Your task to perform on an android device: turn off improve location accuracy Image 0: 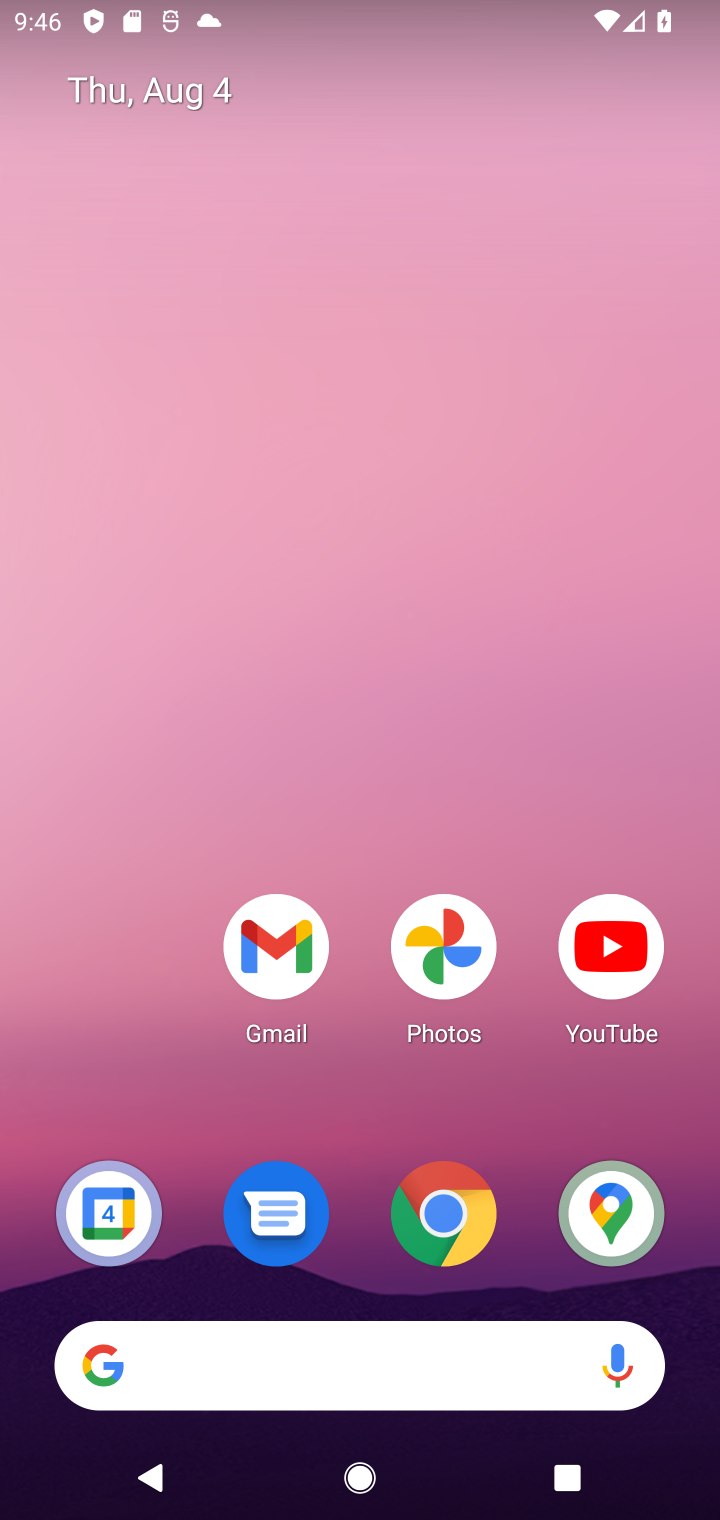
Step 0: drag from (351, 1127) to (460, 13)
Your task to perform on an android device: turn off improve location accuracy Image 1: 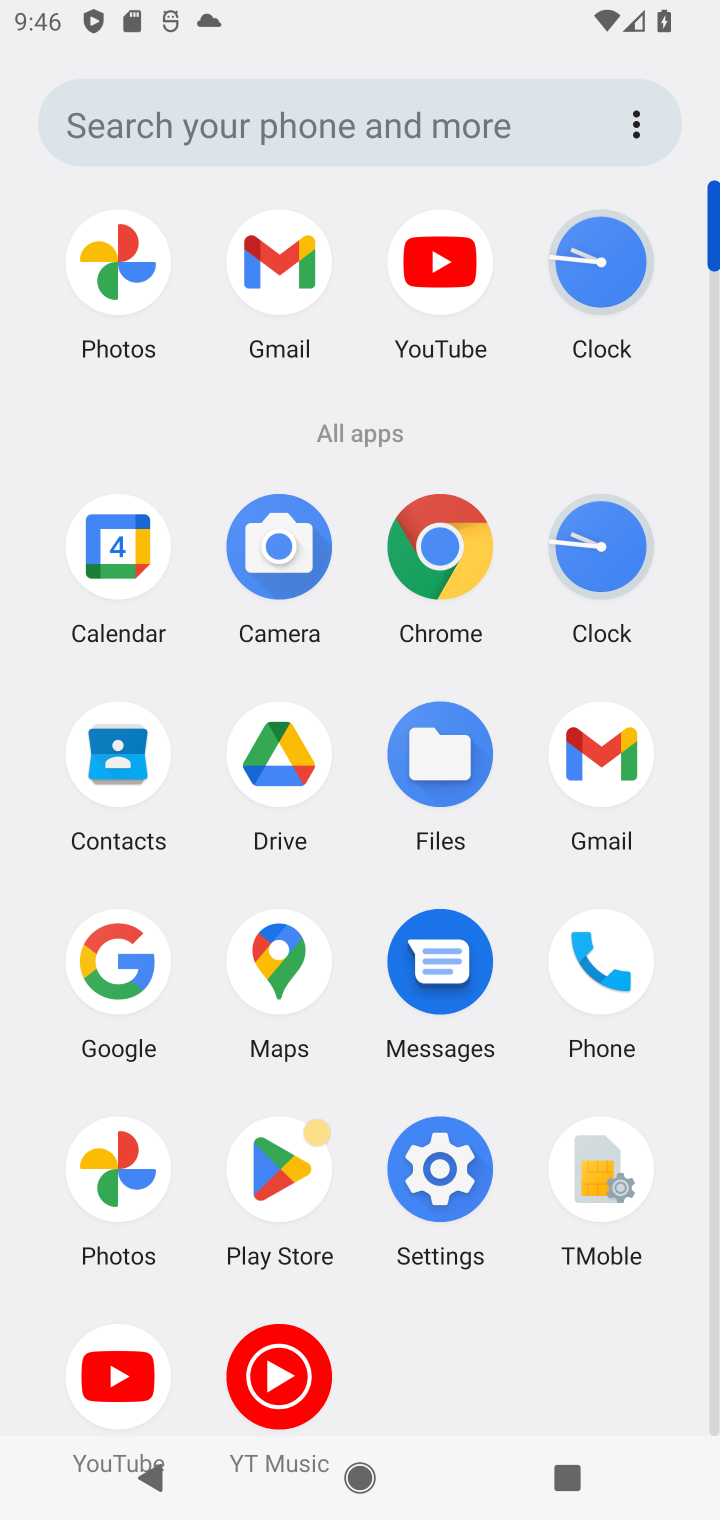
Step 1: click (460, 1161)
Your task to perform on an android device: turn off improve location accuracy Image 2: 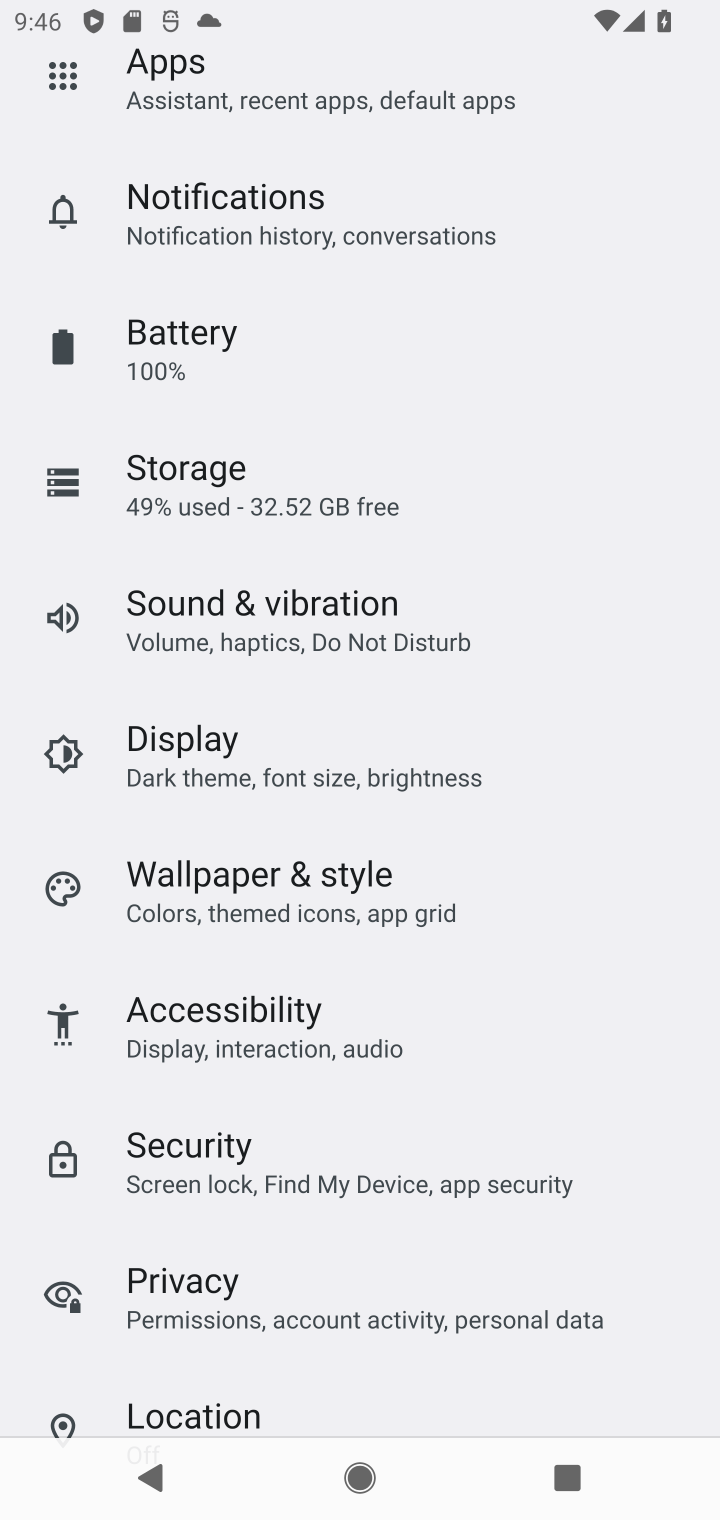
Step 2: click (297, 1401)
Your task to perform on an android device: turn off improve location accuracy Image 3: 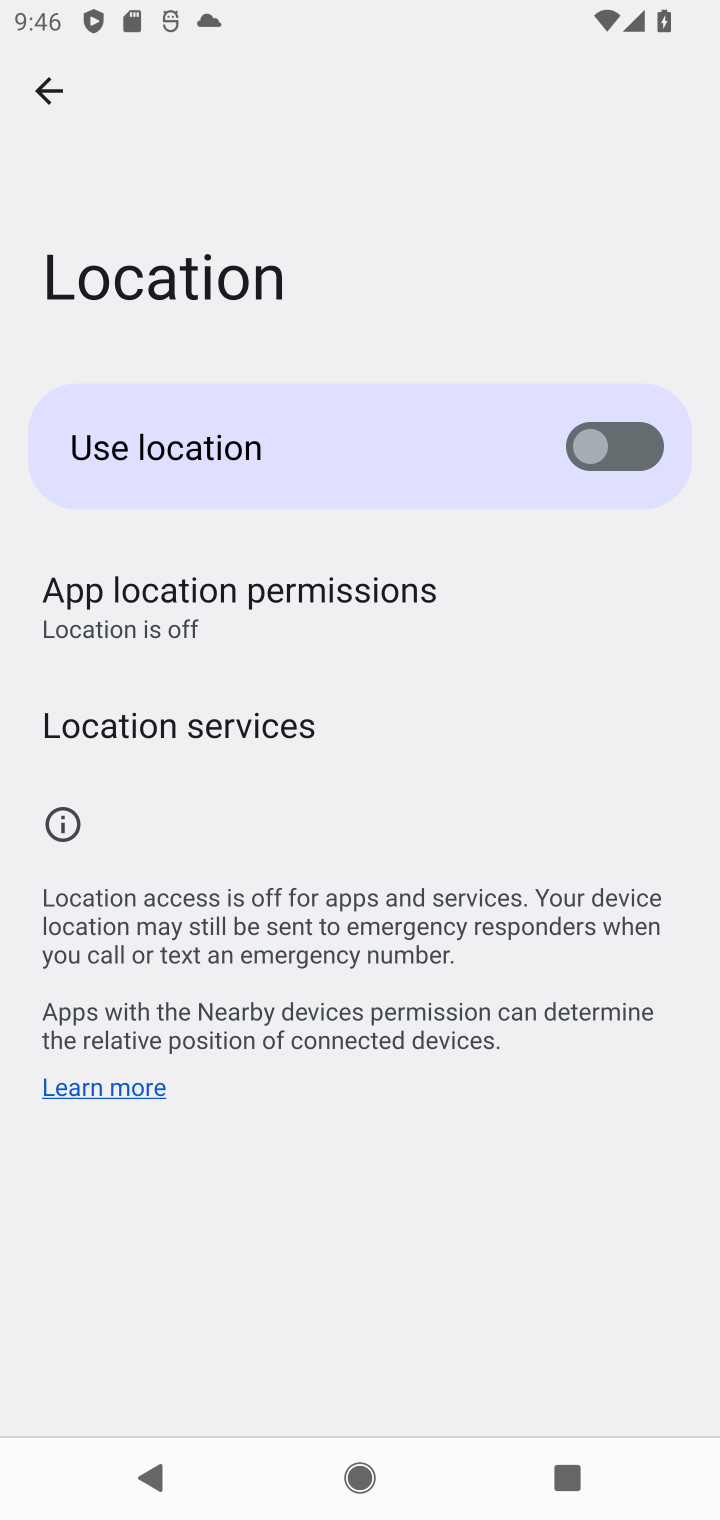
Step 3: click (303, 723)
Your task to perform on an android device: turn off improve location accuracy Image 4: 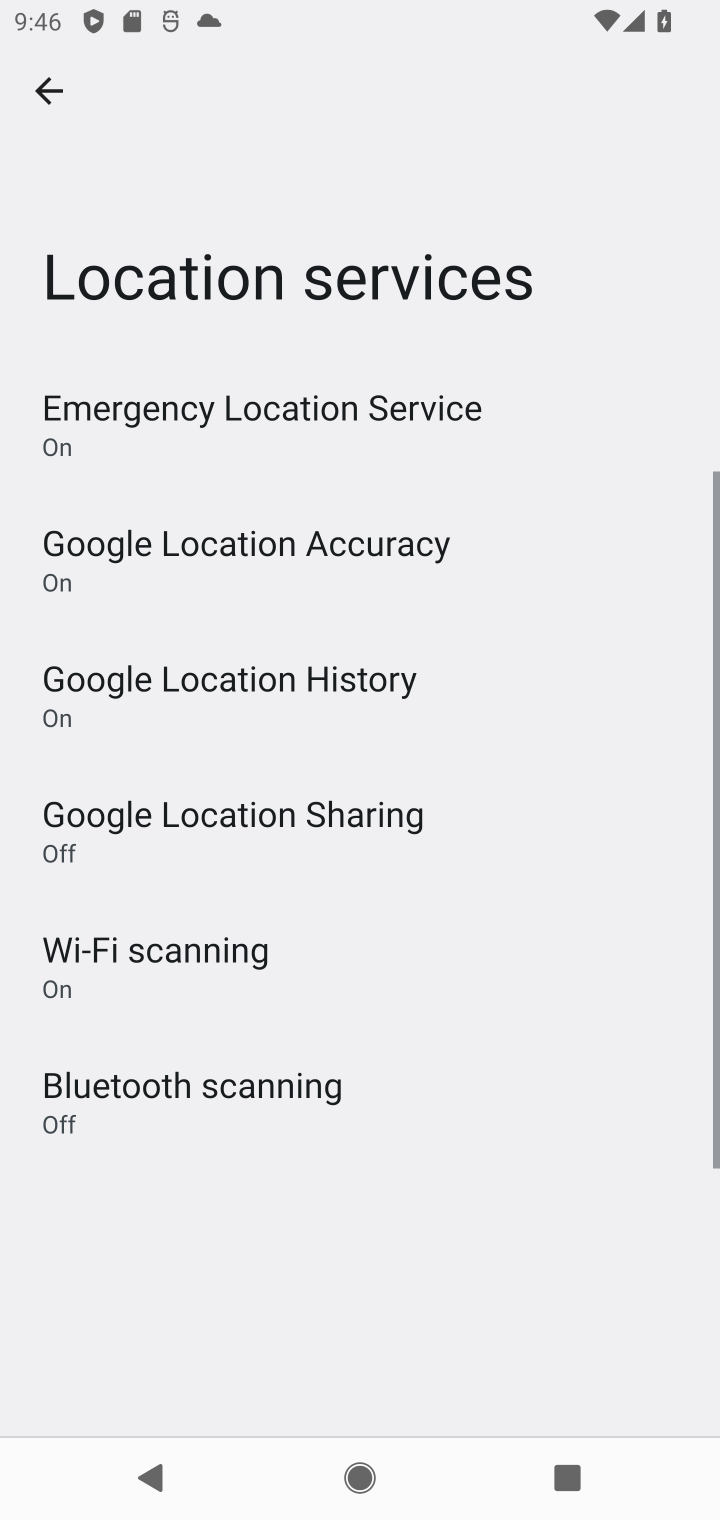
Step 4: click (356, 571)
Your task to perform on an android device: turn off improve location accuracy Image 5: 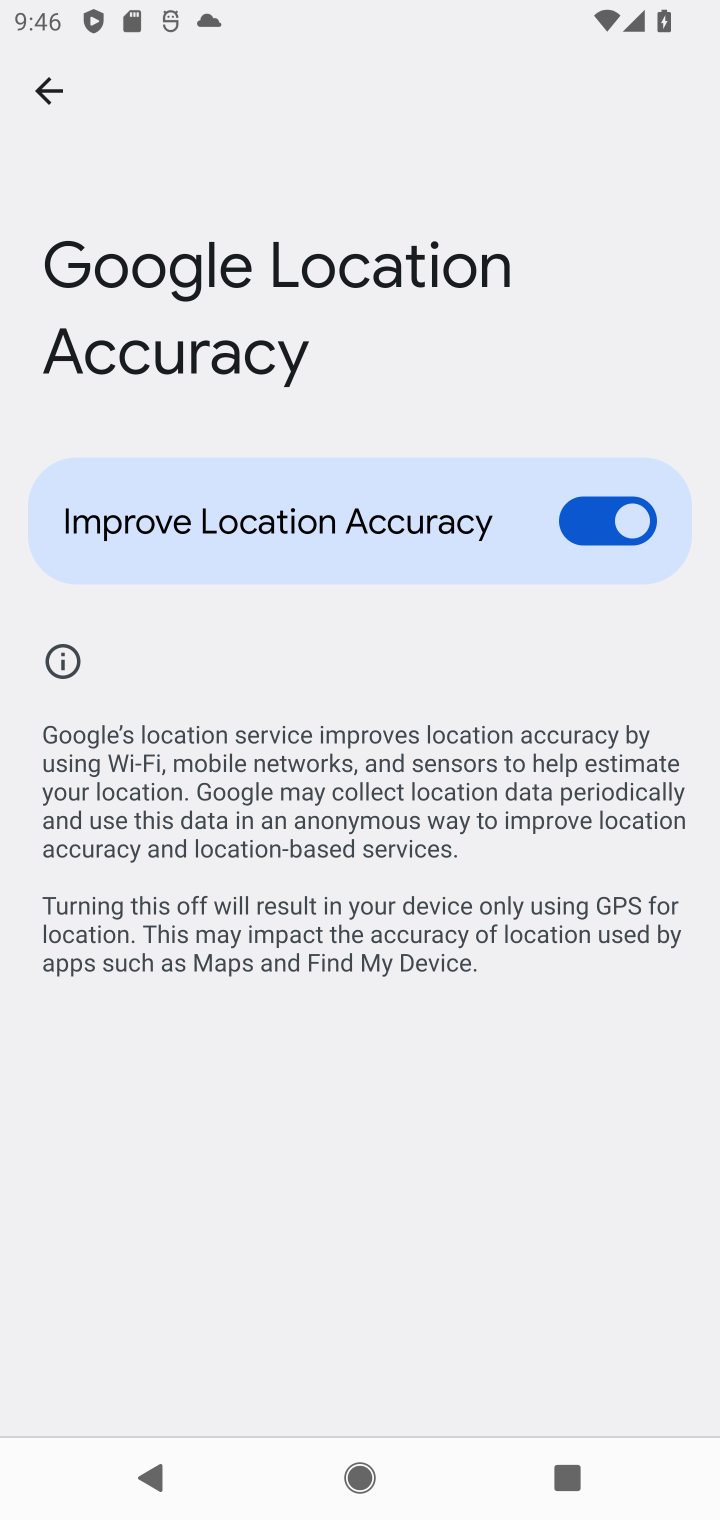
Step 5: click (599, 513)
Your task to perform on an android device: turn off improve location accuracy Image 6: 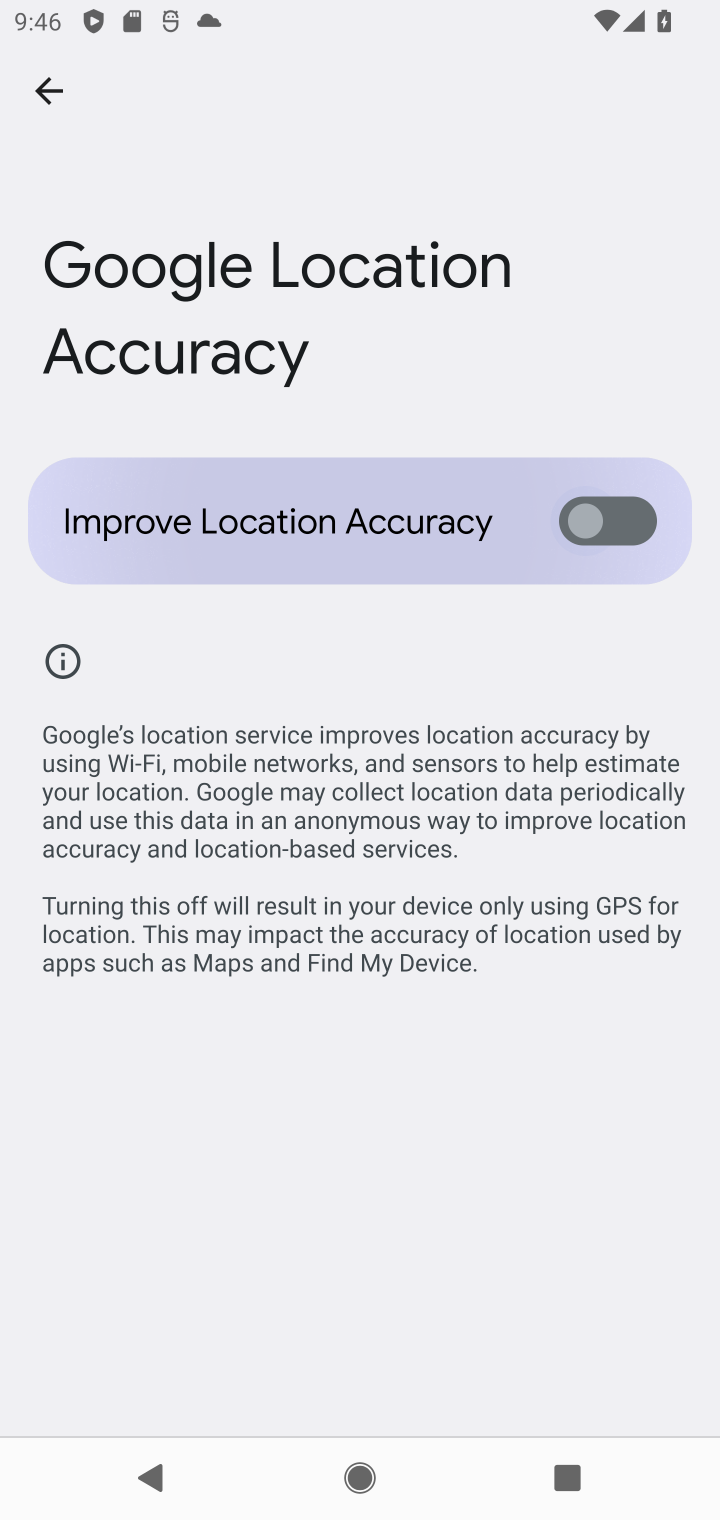
Step 6: task complete